Your task to perform on an android device: empty trash in google photos Image 0: 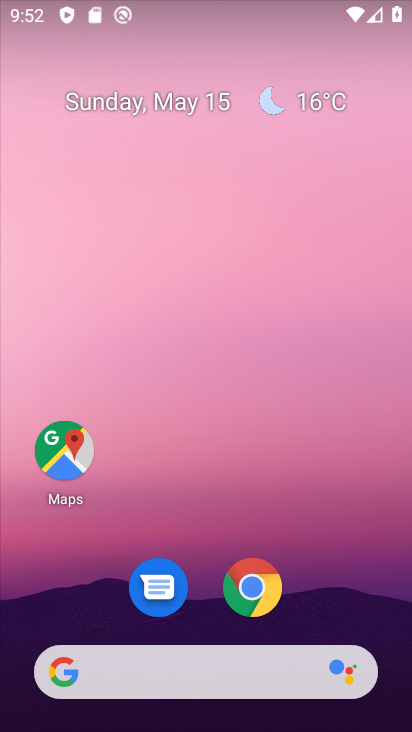
Step 0: drag from (306, 564) to (234, 7)
Your task to perform on an android device: empty trash in google photos Image 1: 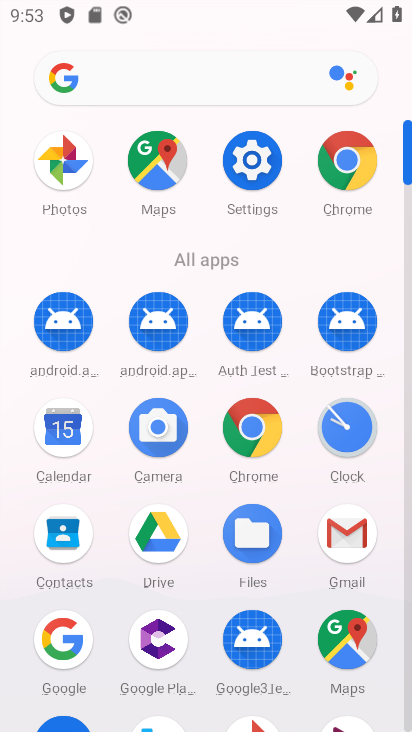
Step 1: drag from (10, 515) to (7, 217)
Your task to perform on an android device: empty trash in google photos Image 2: 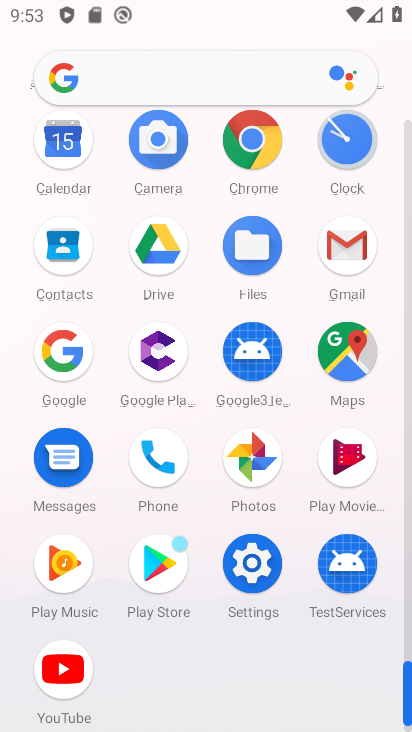
Step 2: click (251, 456)
Your task to perform on an android device: empty trash in google photos Image 3: 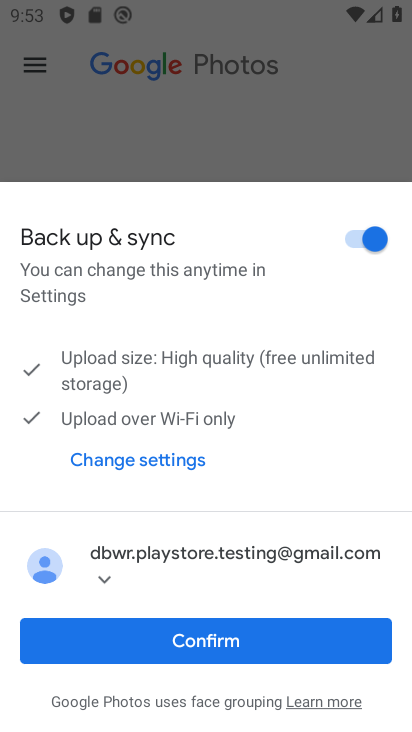
Step 3: click (183, 642)
Your task to perform on an android device: empty trash in google photos Image 4: 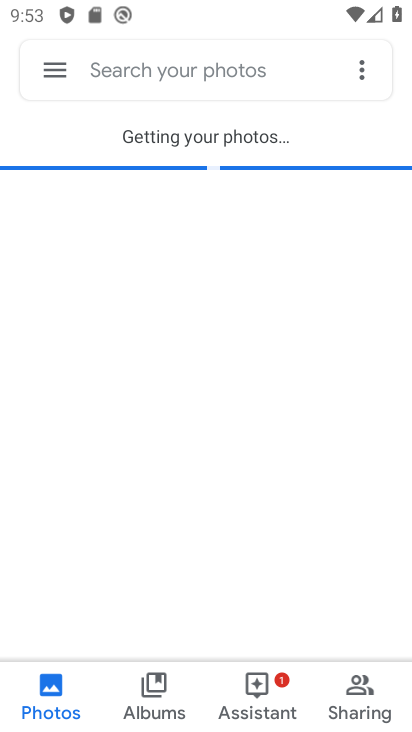
Step 4: click (48, 66)
Your task to perform on an android device: empty trash in google photos Image 5: 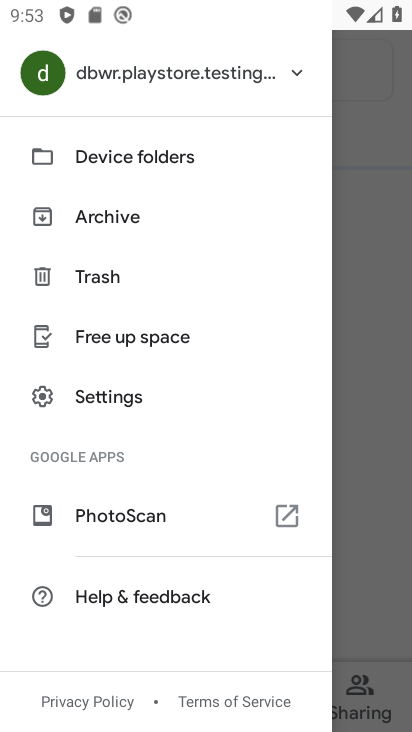
Step 5: click (119, 278)
Your task to perform on an android device: empty trash in google photos Image 6: 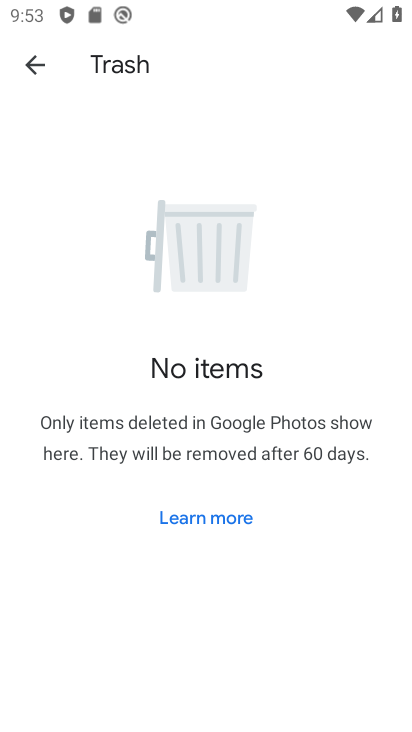
Step 6: task complete